Your task to perform on an android device: What's on my calendar tomorrow? Image 0: 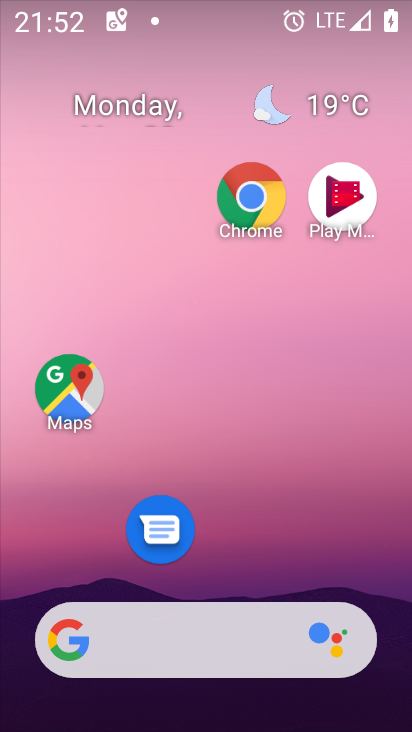
Step 0: drag from (225, 565) to (230, 42)
Your task to perform on an android device: What's on my calendar tomorrow? Image 1: 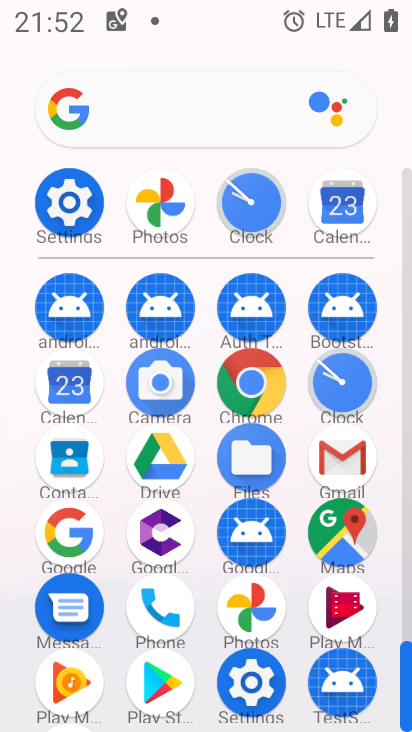
Step 1: click (47, 378)
Your task to perform on an android device: What's on my calendar tomorrow? Image 2: 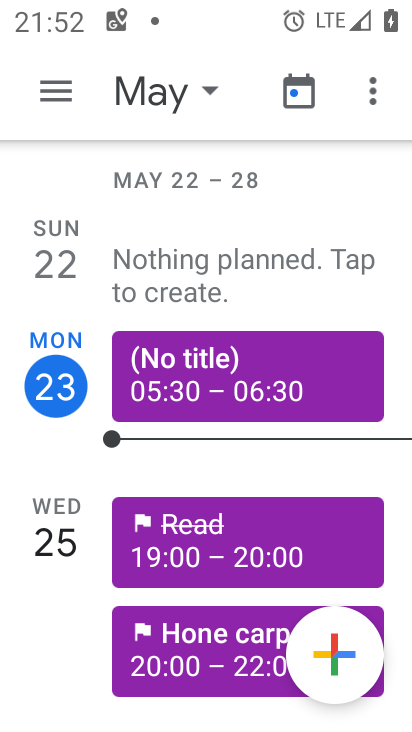
Step 2: task complete